Your task to perform on an android device: allow notifications from all sites in the chrome app Image 0: 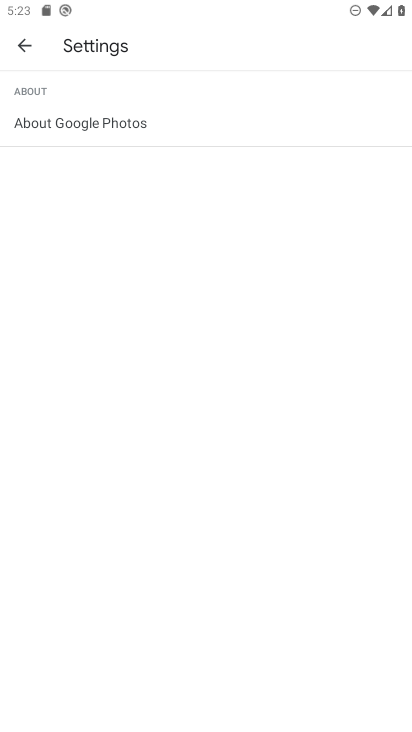
Step 0: press home button
Your task to perform on an android device: allow notifications from all sites in the chrome app Image 1: 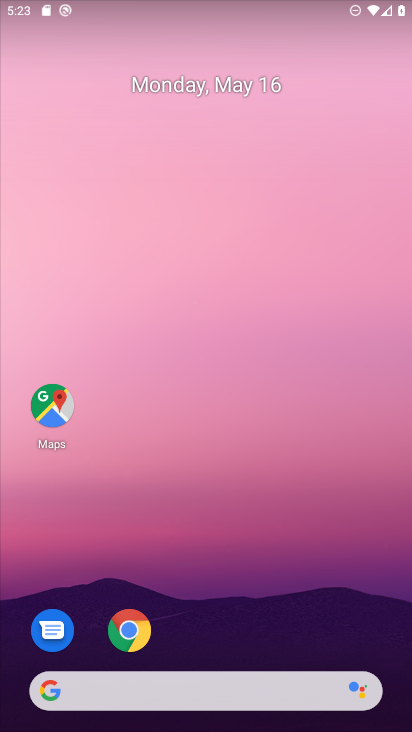
Step 1: click (137, 628)
Your task to perform on an android device: allow notifications from all sites in the chrome app Image 2: 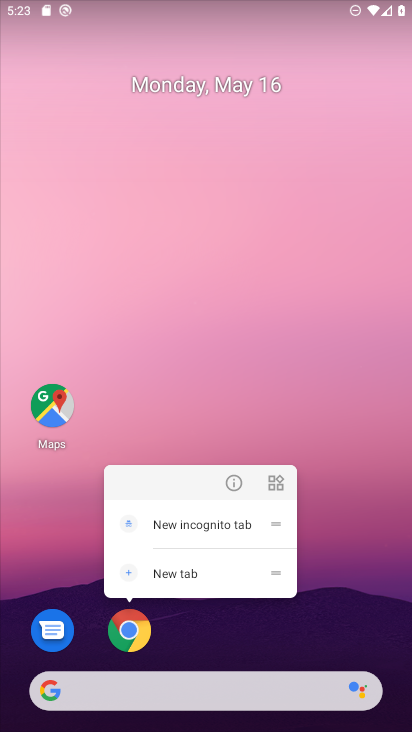
Step 2: click (226, 479)
Your task to perform on an android device: allow notifications from all sites in the chrome app Image 3: 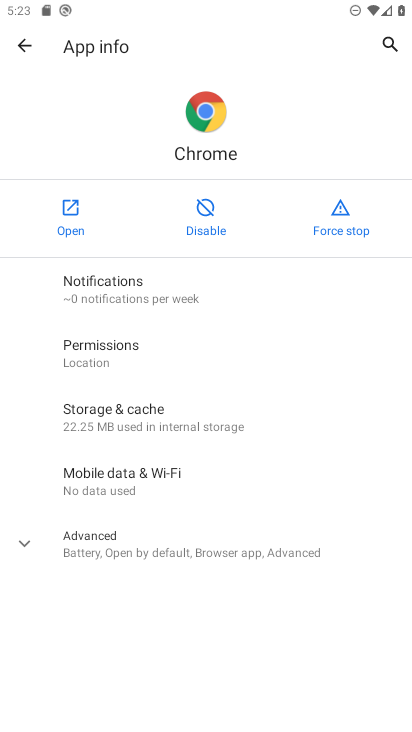
Step 3: click (167, 287)
Your task to perform on an android device: allow notifications from all sites in the chrome app Image 4: 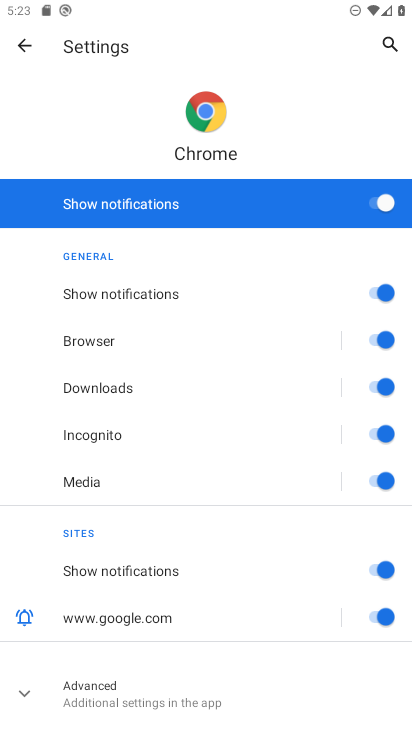
Step 4: click (19, 46)
Your task to perform on an android device: allow notifications from all sites in the chrome app Image 5: 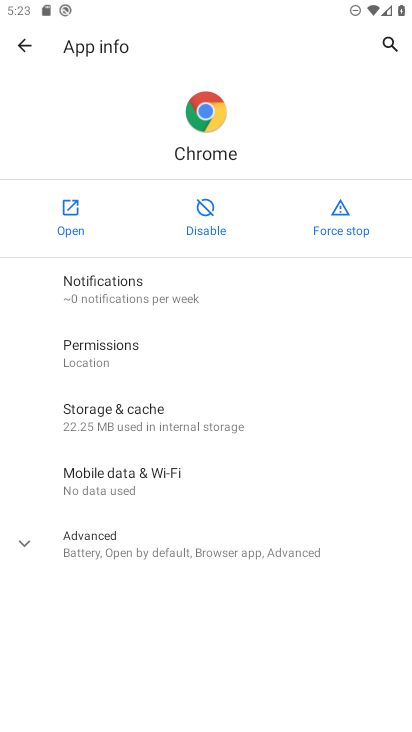
Step 5: click (72, 356)
Your task to perform on an android device: allow notifications from all sites in the chrome app Image 6: 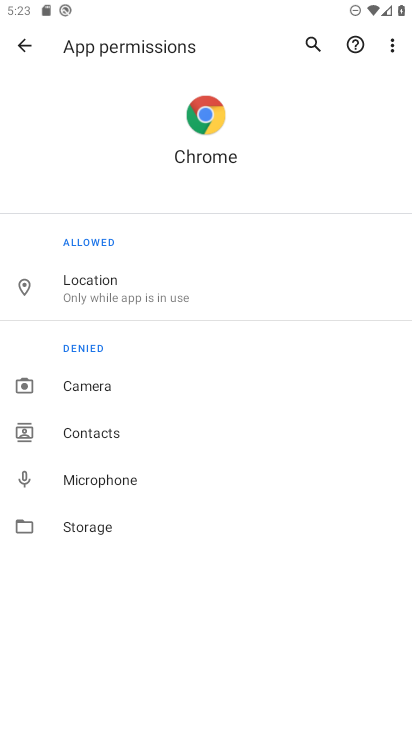
Step 6: click (70, 372)
Your task to perform on an android device: allow notifications from all sites in the chrome app Image 7: 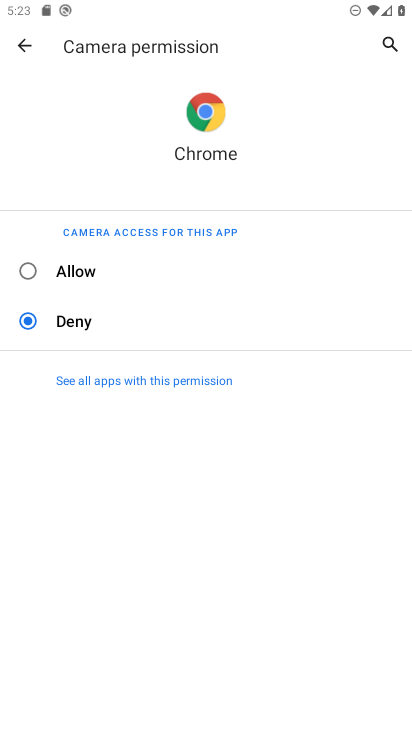
Step 7: click (74, 262)
Your task to perform on an android device: allow notifications from all sites in the chrome app Image 8: 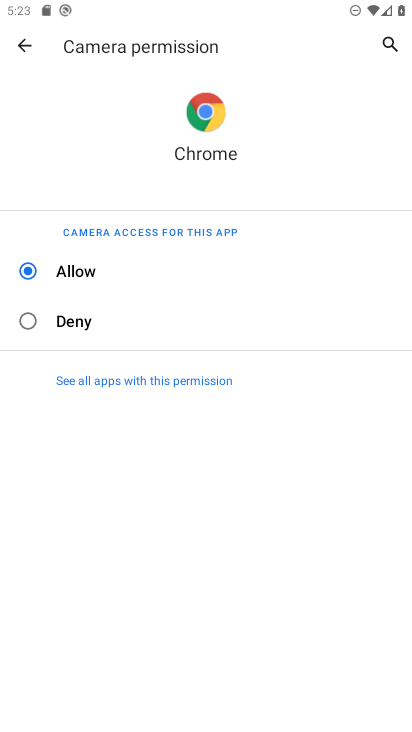
Step 8: click (12, 36)
Your task to perform on an android device: allow notifications from all sites in the chrome app Image 9: 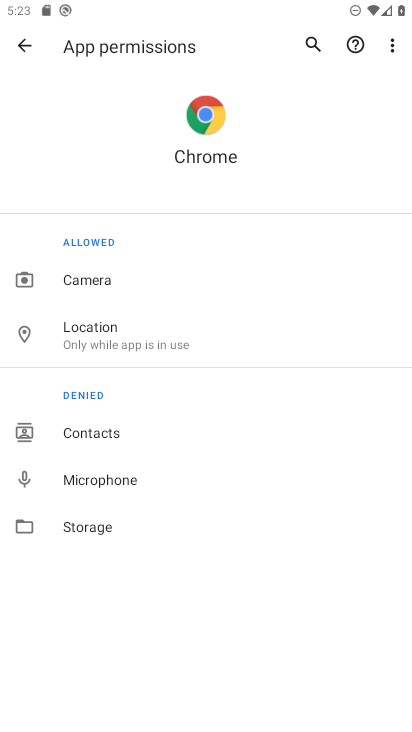
Step 9: click (75, 435)
Your task to perform on an android device: allow notifications from all sites in the chrome app Image 10: 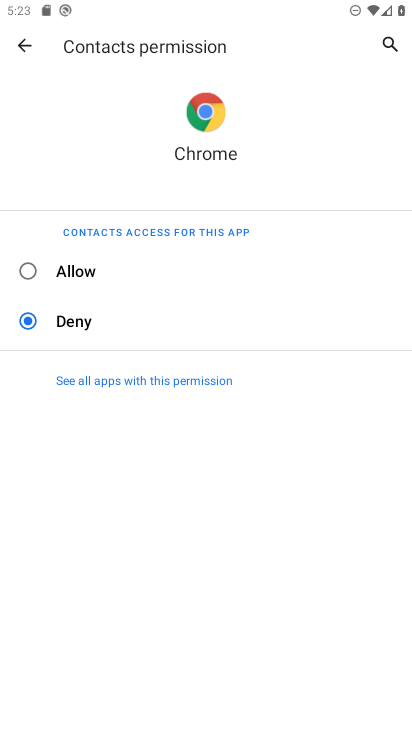
Step 10: click (50, 260)
Your task to perform on an android device: allow notifications from all sites in the chrome app Image 11: 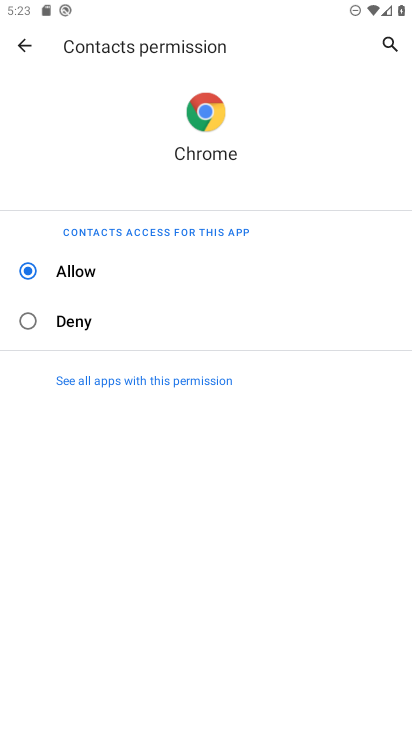
Step 11: click (36, 58)
Your task to perform on an android device: allow notifications from all sites in the chrome app Image 12: 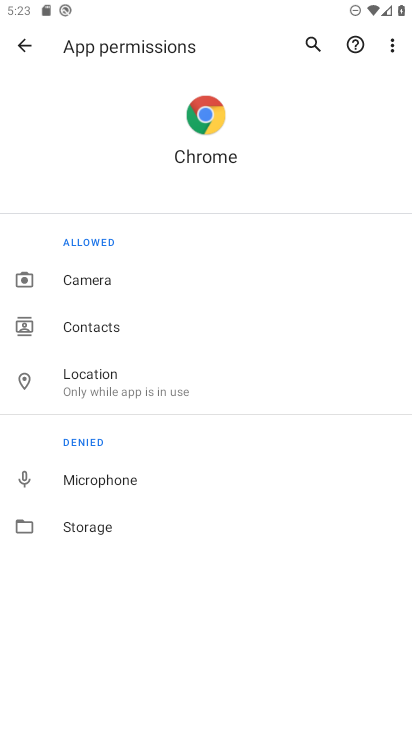
Step 12: click (73, 480)
Your task to perform on an android device: allow notifications from all sites in the chrome app Image 13: 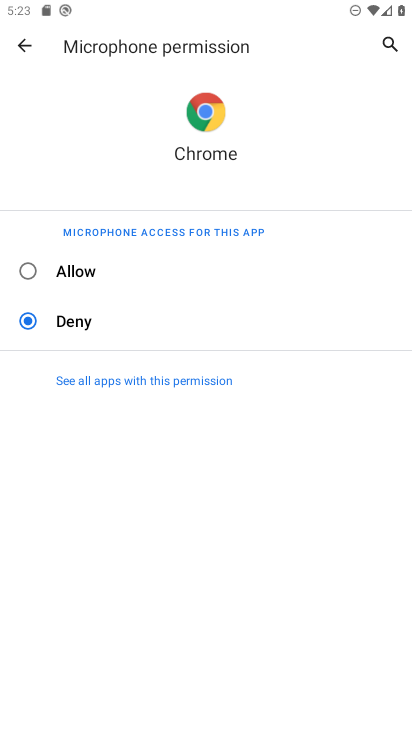
Step 13: click (63, 266)
Your task to perform on an android device: allow notifications from all sites in the chrome app Image 14: 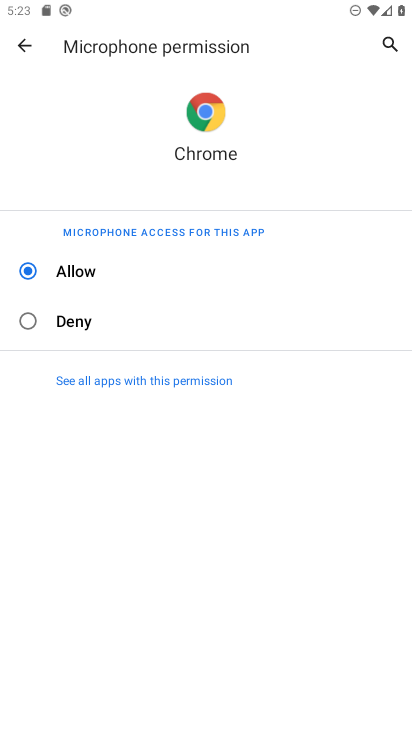
Step 14: click (33, 42)
Your task to perform on an android device: allow notifications from all sites in the chrome app Image 15: 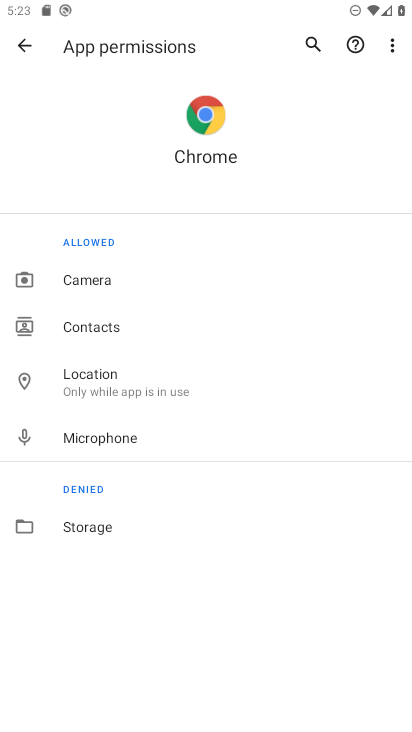
Step 15: click (74, 523)
Your task to perform on an android device: allow notifications from all sites in the chrome app Image 16: 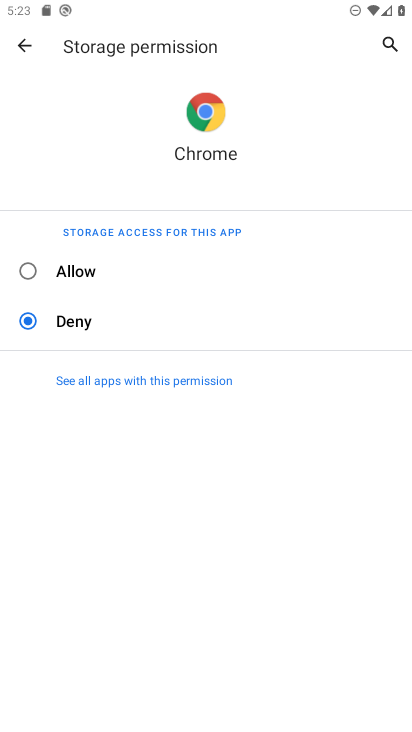
Step 16: click (38, 267)
Your task to perform on an android device: allow notifications from all sites in the chrome app Image 17: 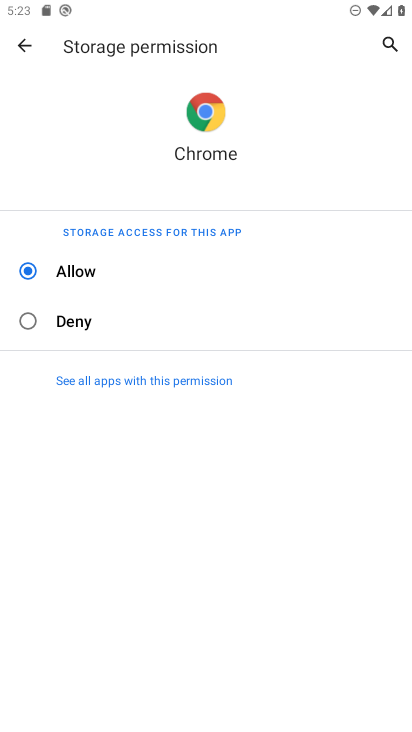
Step 17: click (28, 44)
Your task to perform on an android device: allow notifications from all sites in the chrome app Image 18: 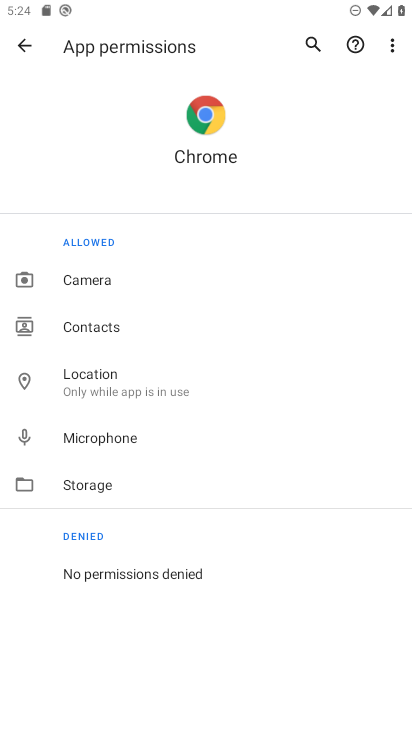
Step 18: task complete